Your task to perform on an android device: Go to accessibility settings Image 0: 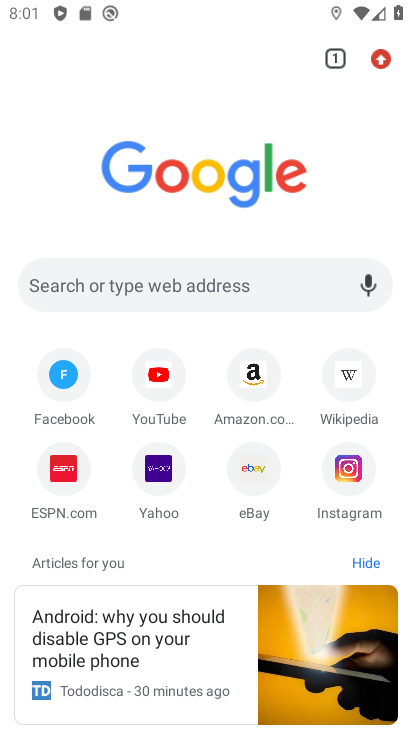
Step 0: press home button
Your task to perform on an android device: Go to accessibility settings Image 1: 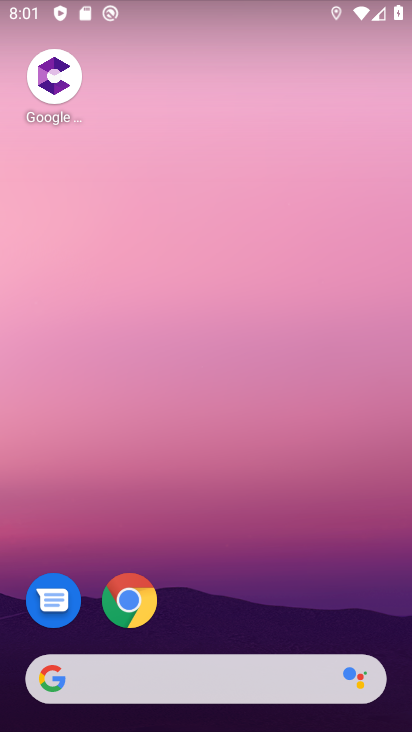
Step 1: drag from (198, 710) to (161, 120)
Your task to perform on an android device: Go to accessibility settings Image 2: 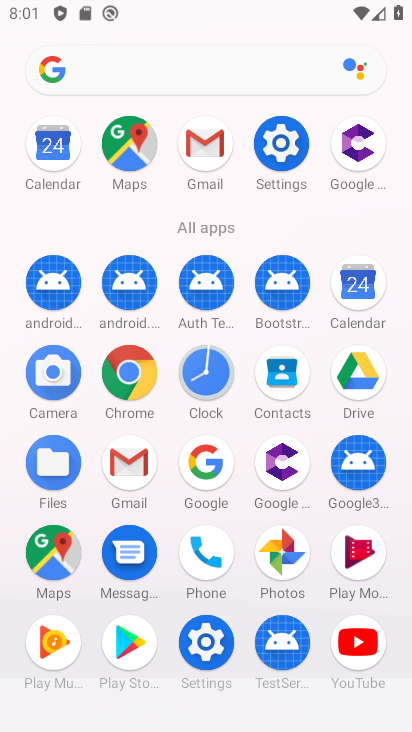
Step 2: click (210, 636)
Your task to perform on an android device: Go to accessibility settings Image 3: 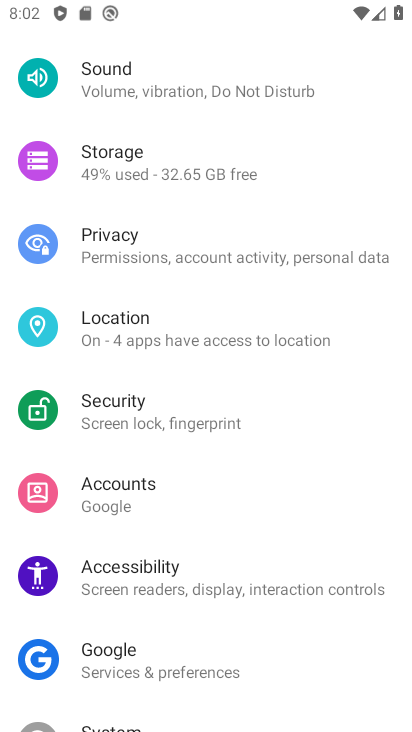
Step 3: click (185, 577)
Your task to perform on an android device: Go to accessibility settings Image 4: 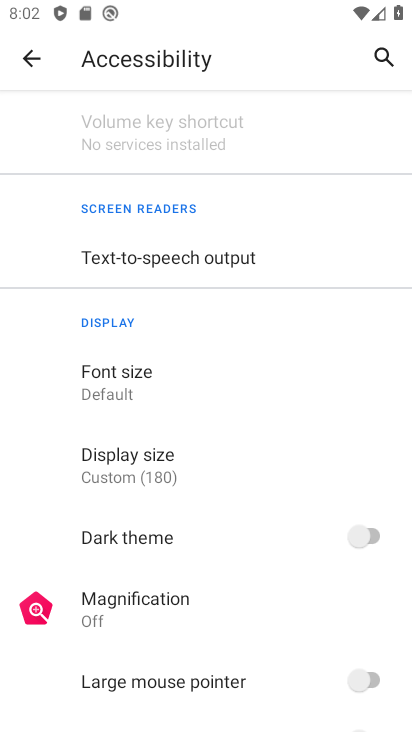
Step 4: task complete